Your task to perform on an android device: remove spam from my inbox in the gmail app Image 0: 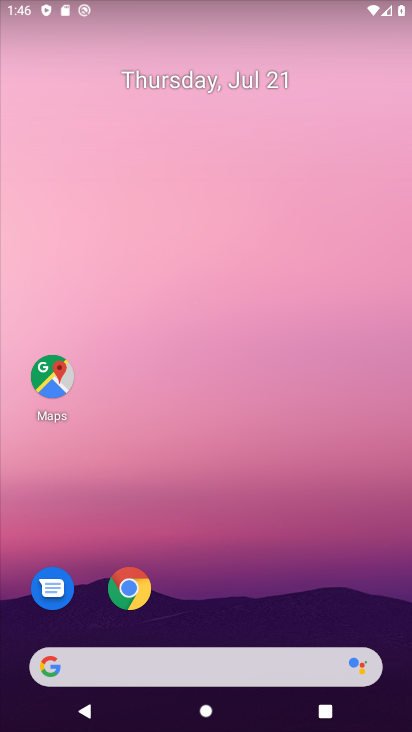
Step 0: click (335, 164)
Your task to perform on an android device: remove spam from my inbox in the gmail app Image 1: 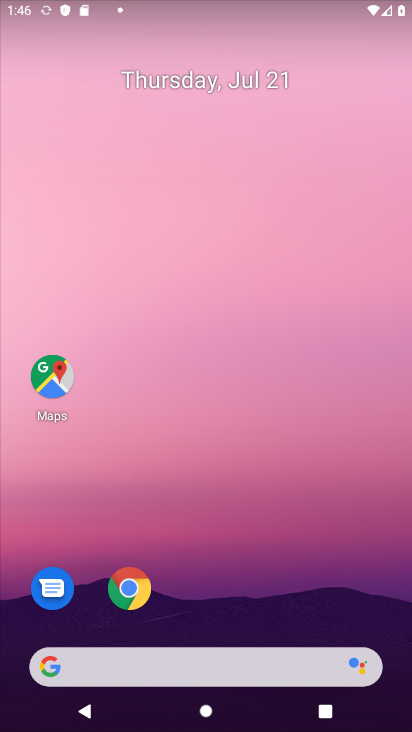
Step 1: drag from (197, 610) to (186, 196)
Your task to perform on an android device: remove spam from my inbox in the gmail app Image 2: 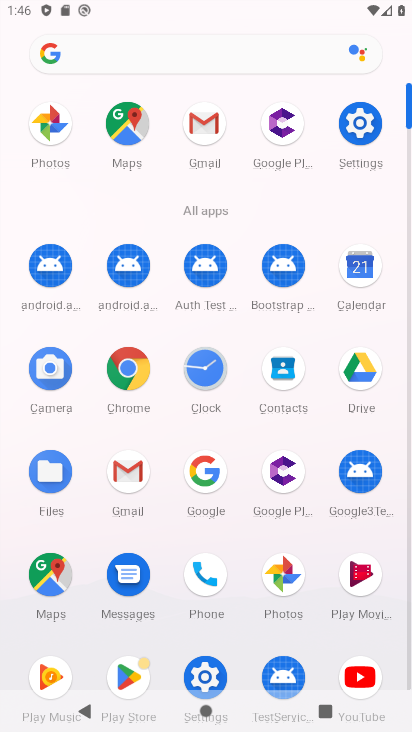
Step 2: click (120, 474)
Your task to perform on an android device: remove spam from my inbox in the gmail app Image 3: 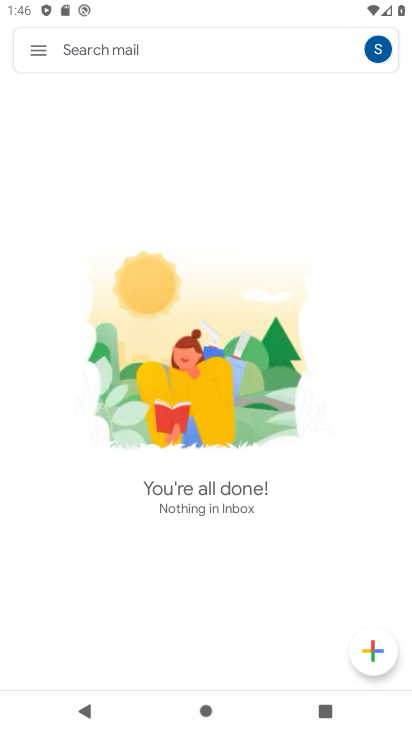
Step 3: click (33, 51)
Your task to perform on an android device: remove spam from my inbox in the gmail app Image 4: 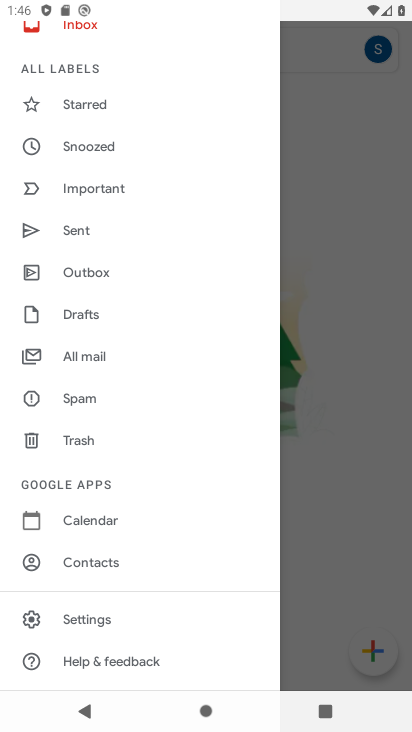
Step 4: click (47, 385)
Your task to perform on an android device: remove spam from my inbox in the gmail app Image 5: 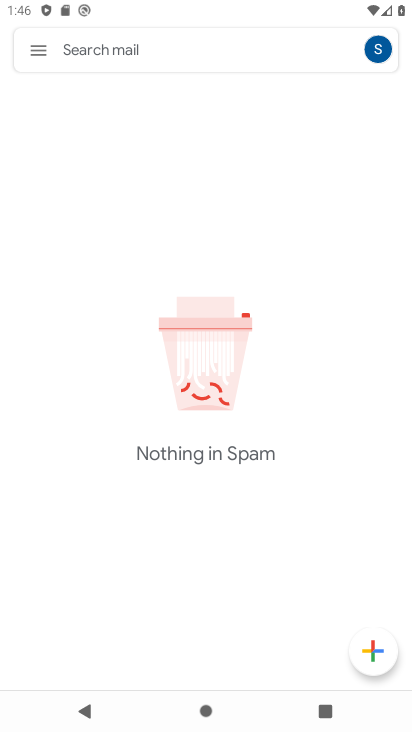
Step 5: task complete